Your task to perform on an android device: turn off priority inbox in the gmail app Image 0: 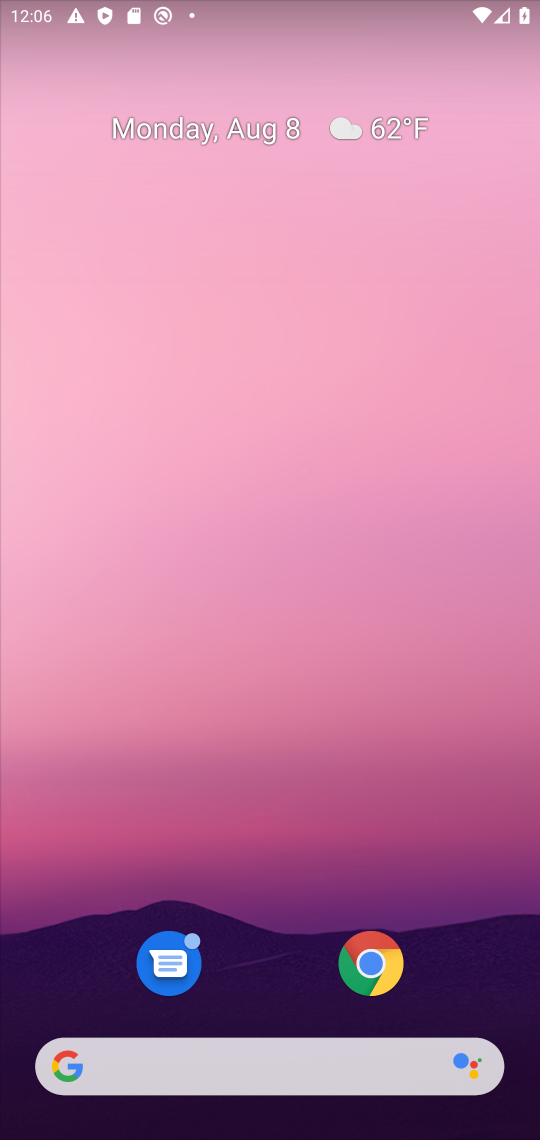
Step 0: drag from (482, 987) to (212, 105)
Your task to perform on an android device: turn off priority inbox in the gmail app Image 1: 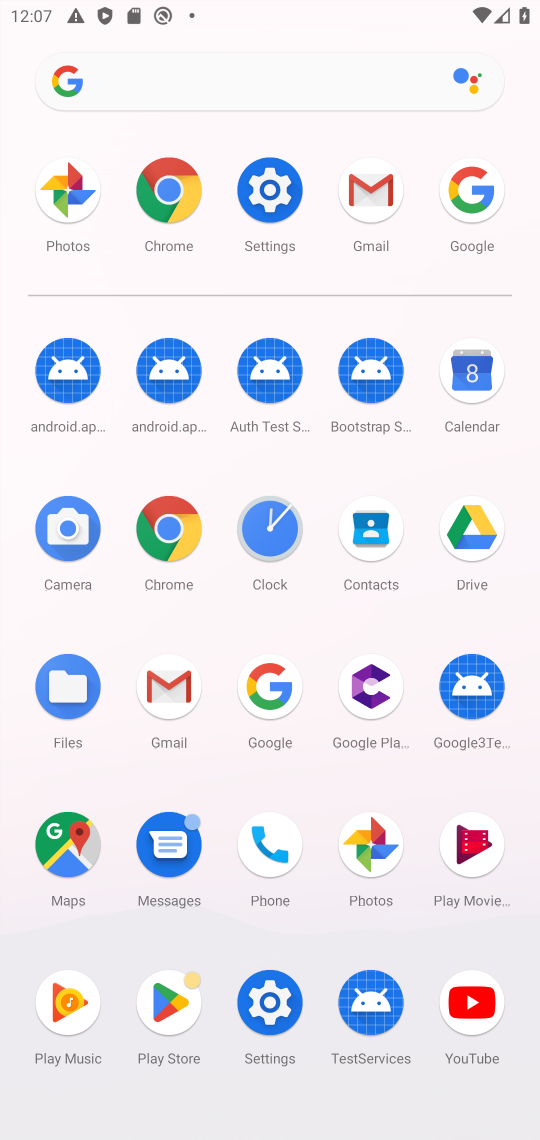
Step 1: click (165, 675)
Your task to perform on an android device: turn off priority inbox in the gmail app Image 2: 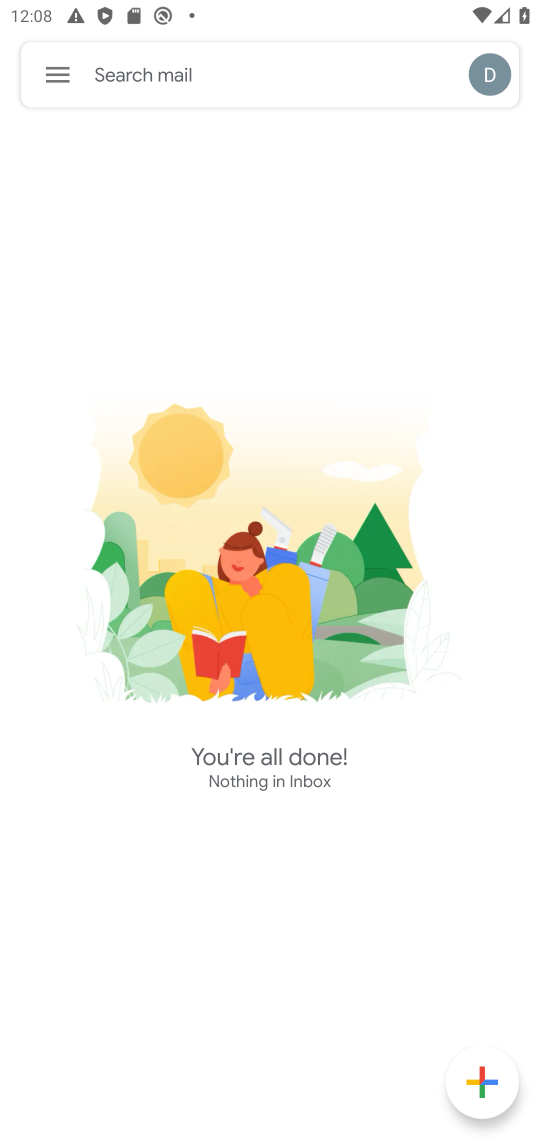
Step 2: click (53, 88)
Your task to perform on an android device: turn off priority inbox in the gmail app Image 3: 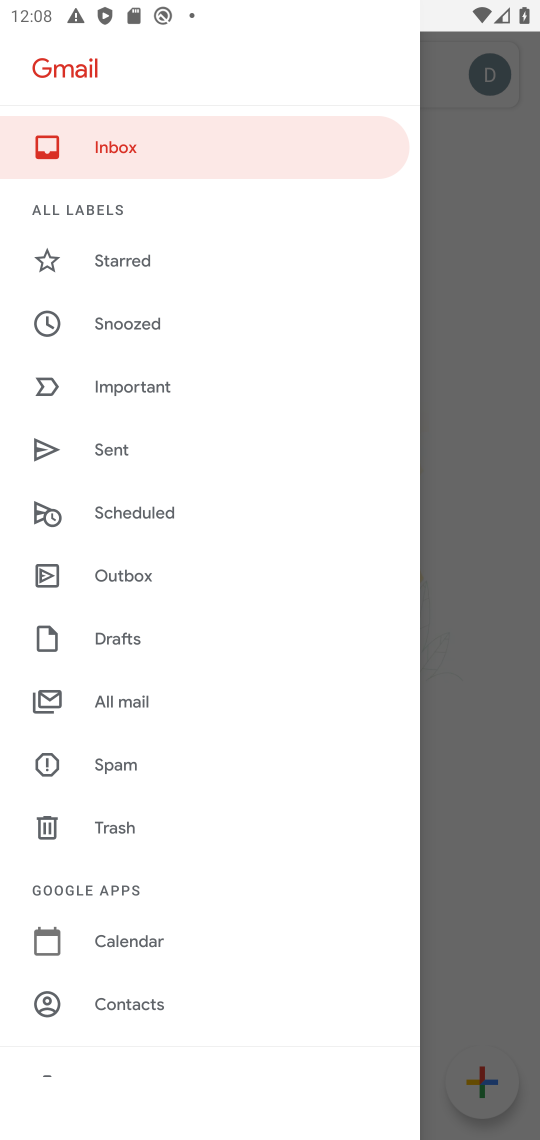
Step 3: drag from (147, 1029) to (243, 78)
Your task to perform on an android device: turn off priority inbox in the gmail app Image 4: 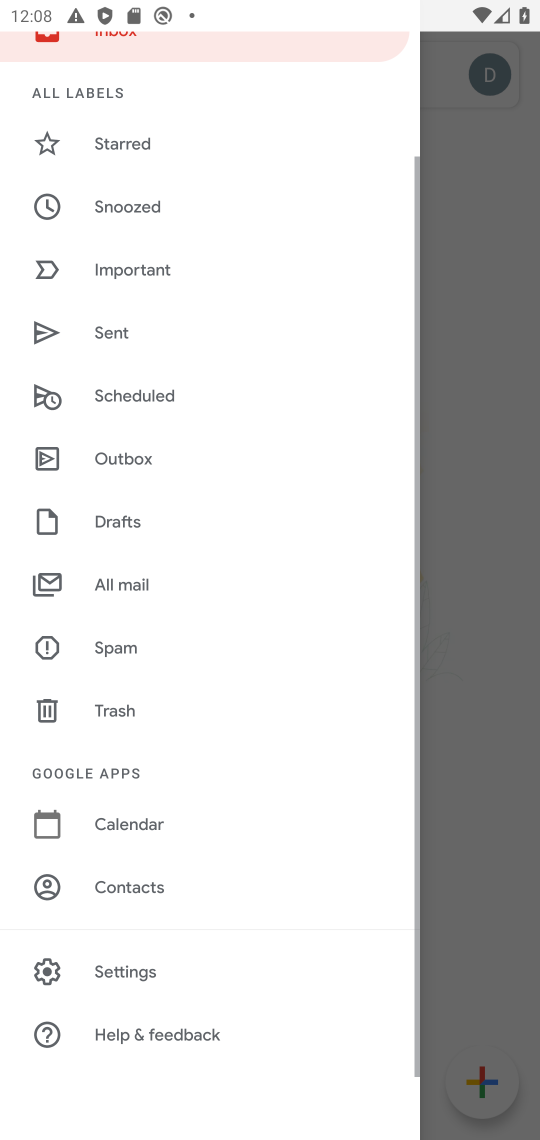
Step 4: click (147, 980)
Your task to perform on an android device: turn off priority inbox in the gmail app Image 5: 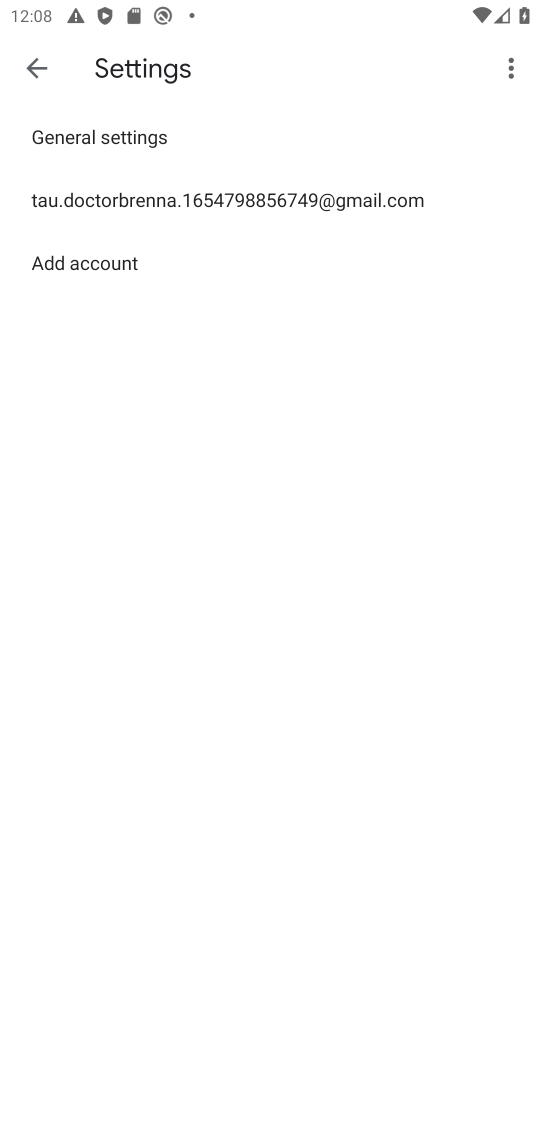
Step 5: click (211, 206)
Your task to perform on an android device: turn off priority inbox in the gmail app Image 6: 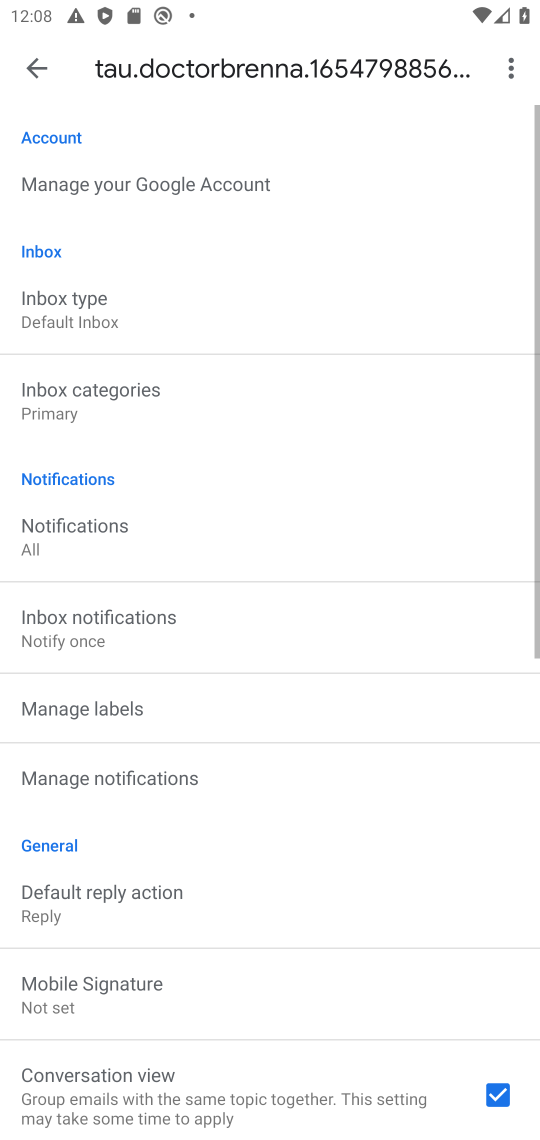
Step 6: click (80, 311)
Your task to perform on an android device: turn off priority inbox in the gmail app Image 7: 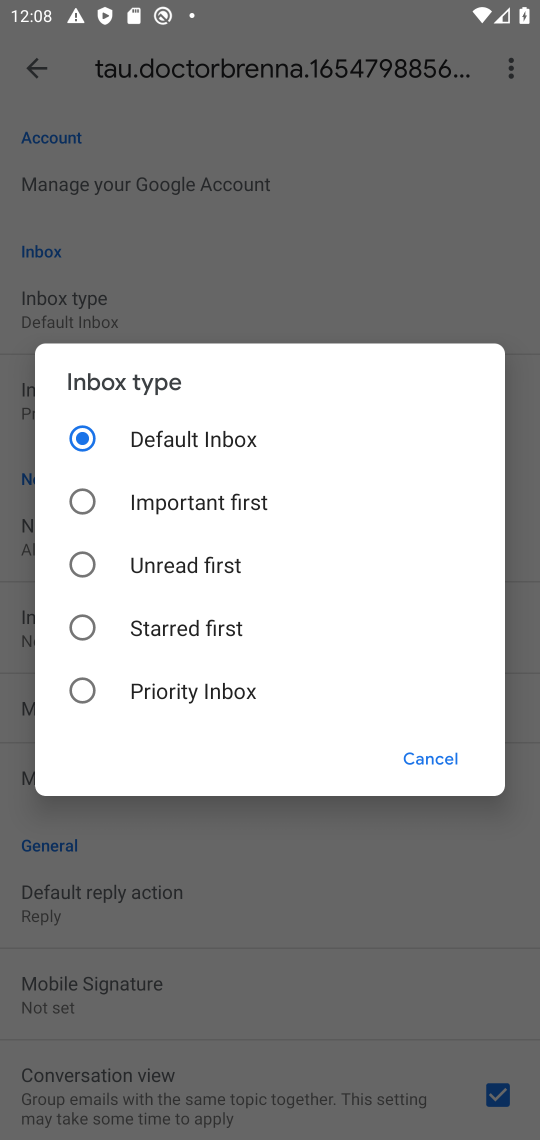
Step 7: task complete